Your task to perform on an android device: check google app version Image 0: 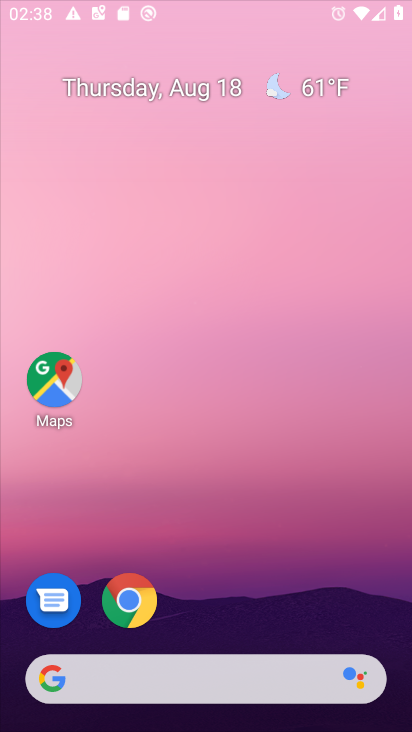
Step 0: press home button
Your task to perform on an android device: check google app version Image 1: 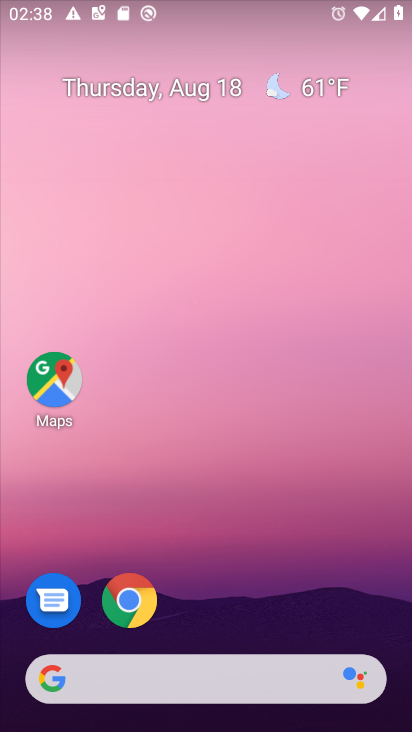
Step 1: drag from (274, 600) to (265, 84)
Your task to perform on an android device: check google app version Image 2: 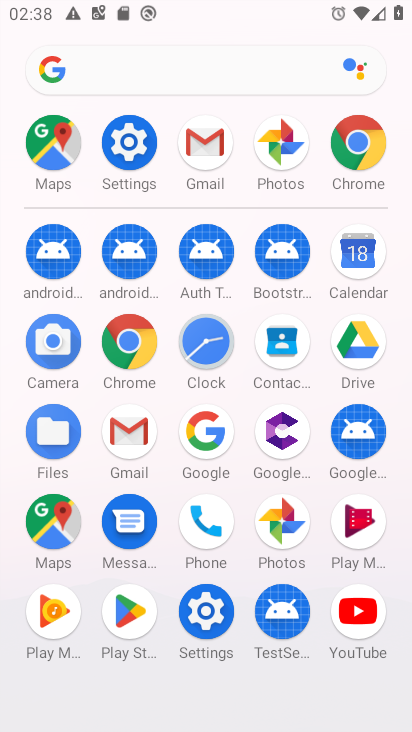
Step 2: click (210, 429)
Your task to perform on an android device: check google app version Image 3: 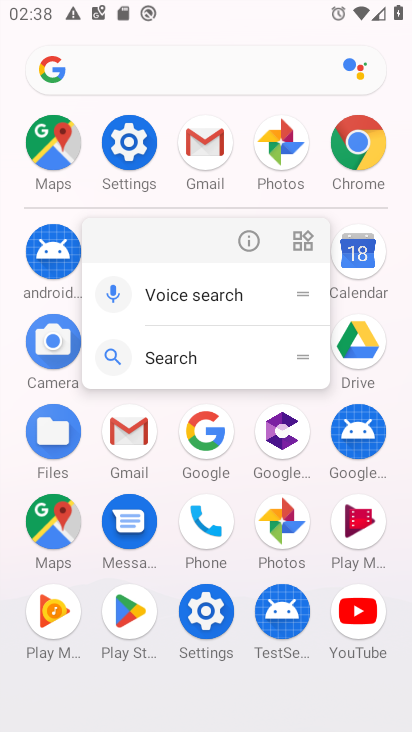
Step 3: click (239, 236)
Your task to perform on an android device: check google app version Image 4: 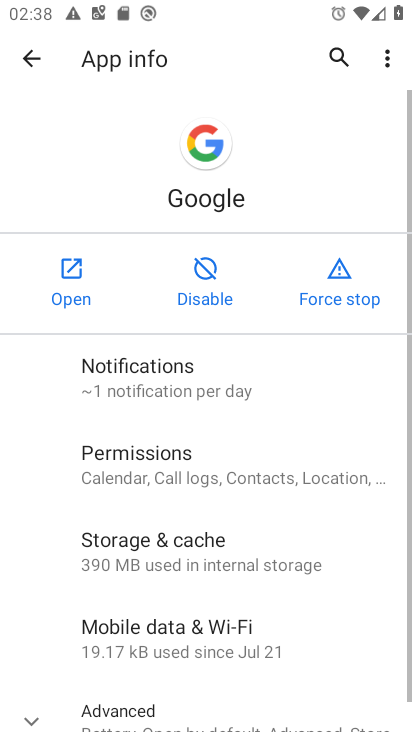
Step 4: drag from (154, 603) to (179, 208)
Your task to perform on an android device: check google app version Image 5: 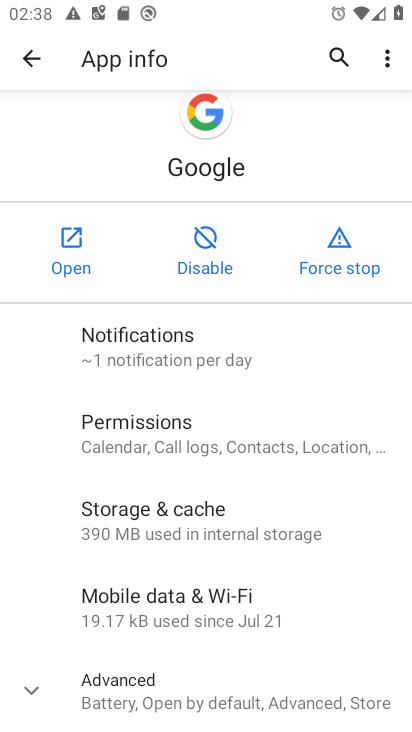
Step 5: drag from (157, 645) to (166, 215)
Your task to perform on an android device: check google app version Image 6: 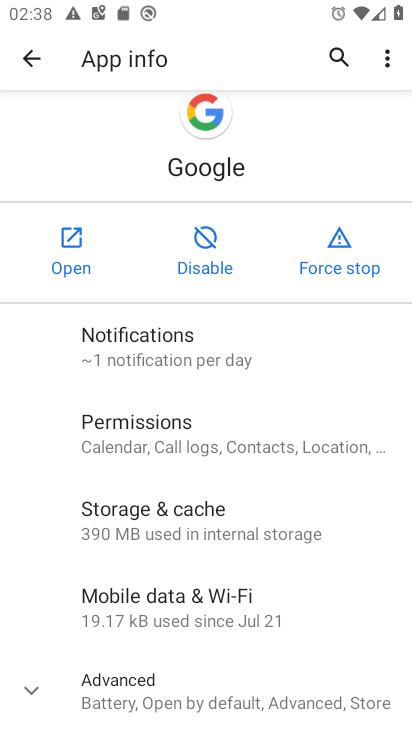
Step 6: click (32, 694)
Your task to perform on an android device: check google app version Image 7: 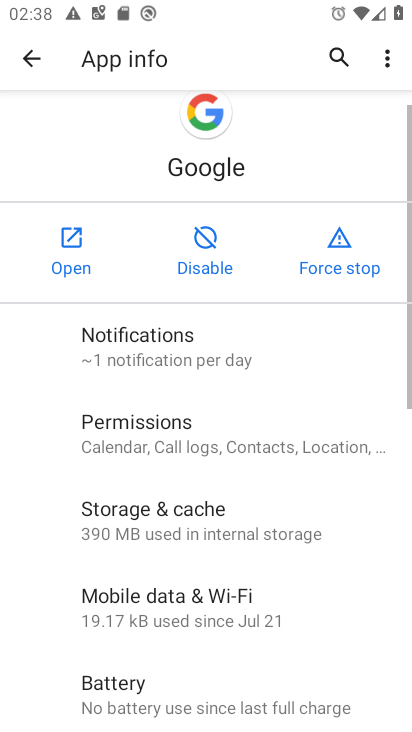
Step 7: task complete